Your task to perform on an android device: Open wifi settings Image 0: 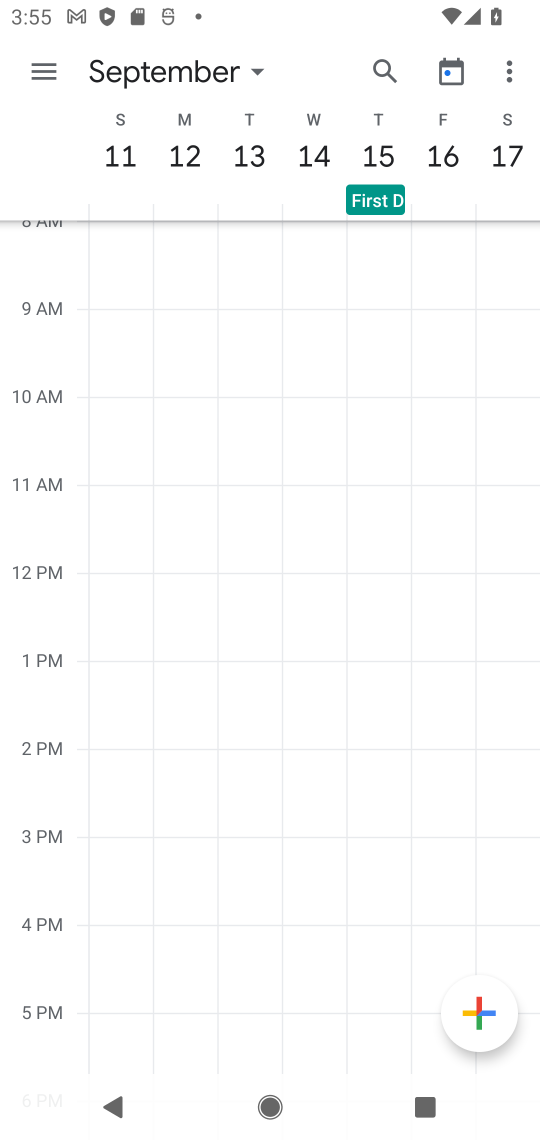
Step 0: press home button
Your task to perform on an android device: Open wifi settings Image 1: 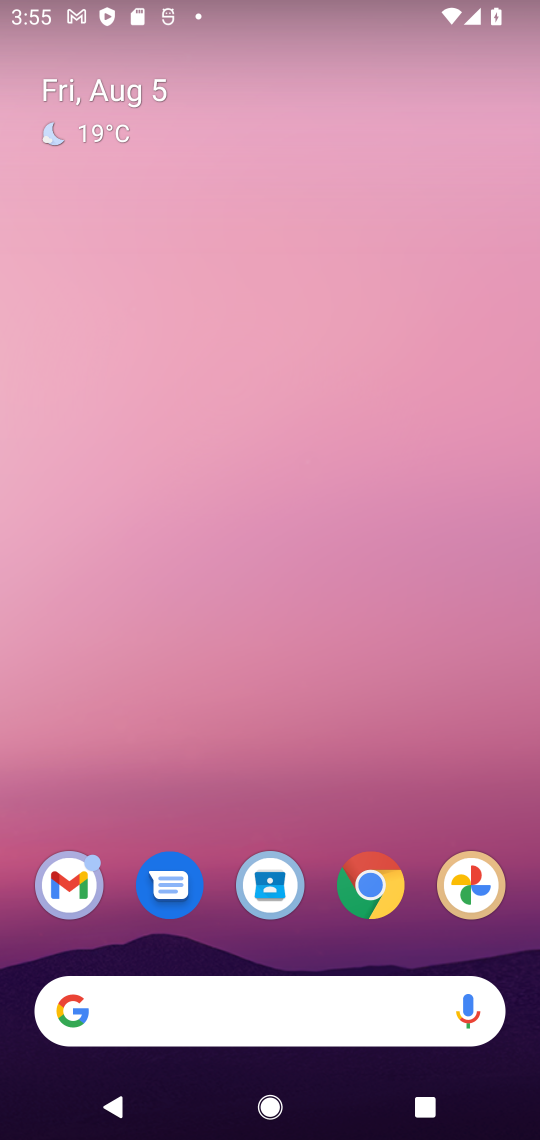
Step 1: drag from (284, 949) to (270, 286)
Your task to perform on an android device: Open wifi settings Image 2: 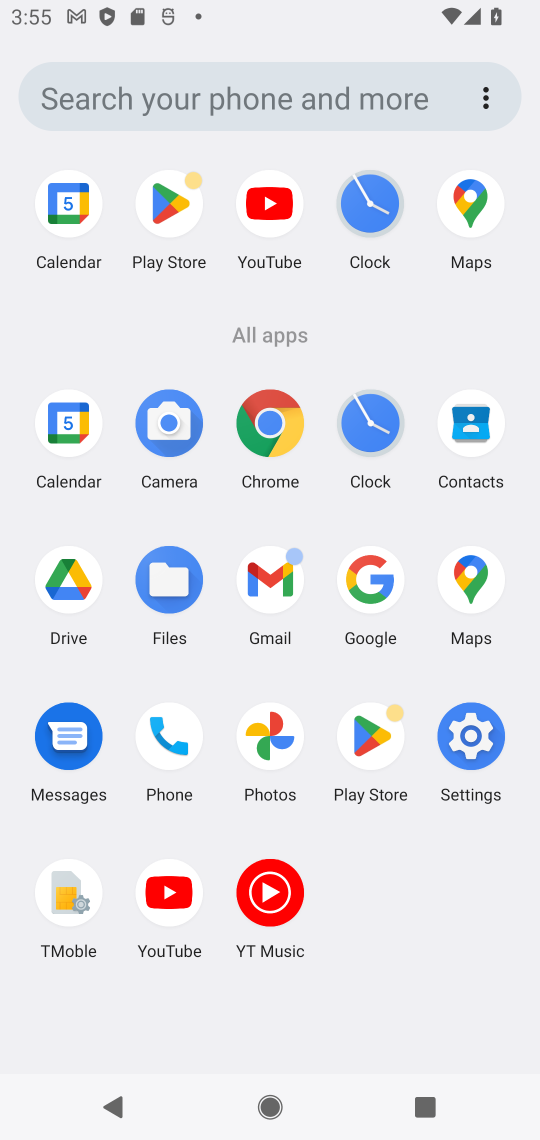
Step 2: click (463, 755)
Your task to perform on an android device: Open wifi settings Image 3: 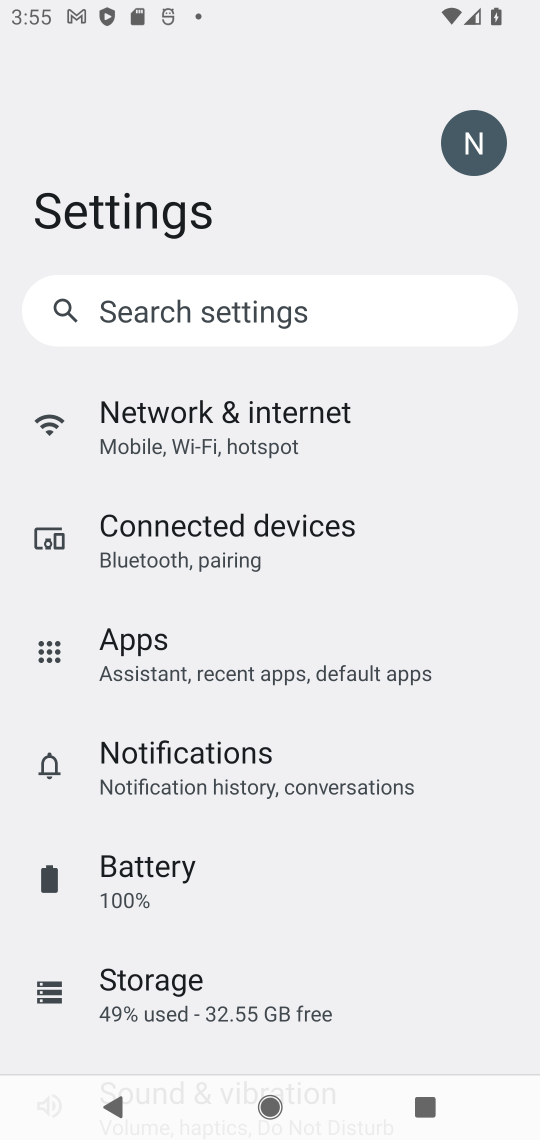
Step 3: click (244, 437)
Your task to perform on an android device: Open wifi settings Image 4: 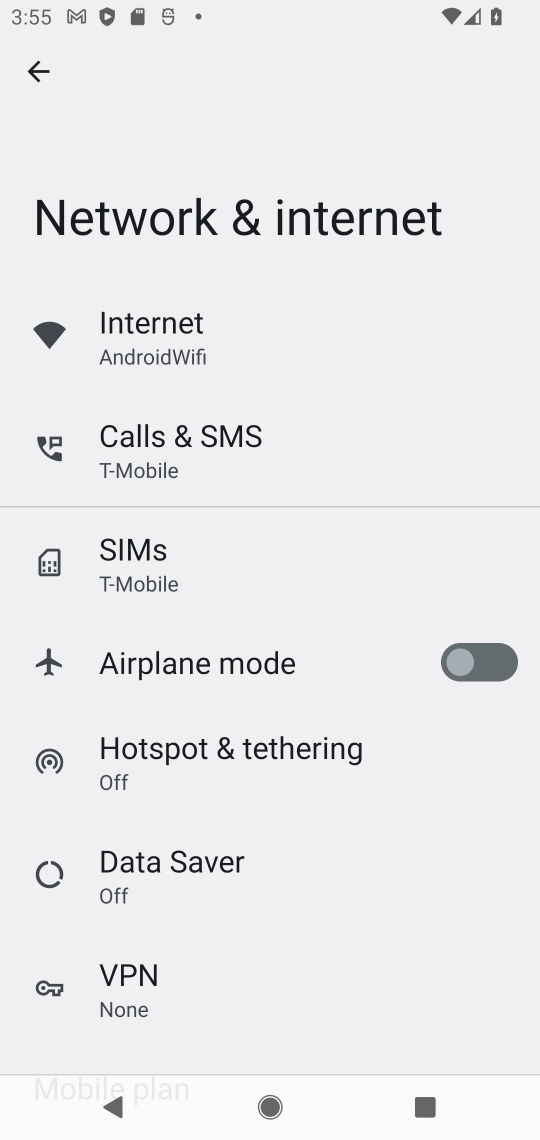
Step 4: click (154, 332)
Your task to perform on an android device: Open wifi settings Image 5: 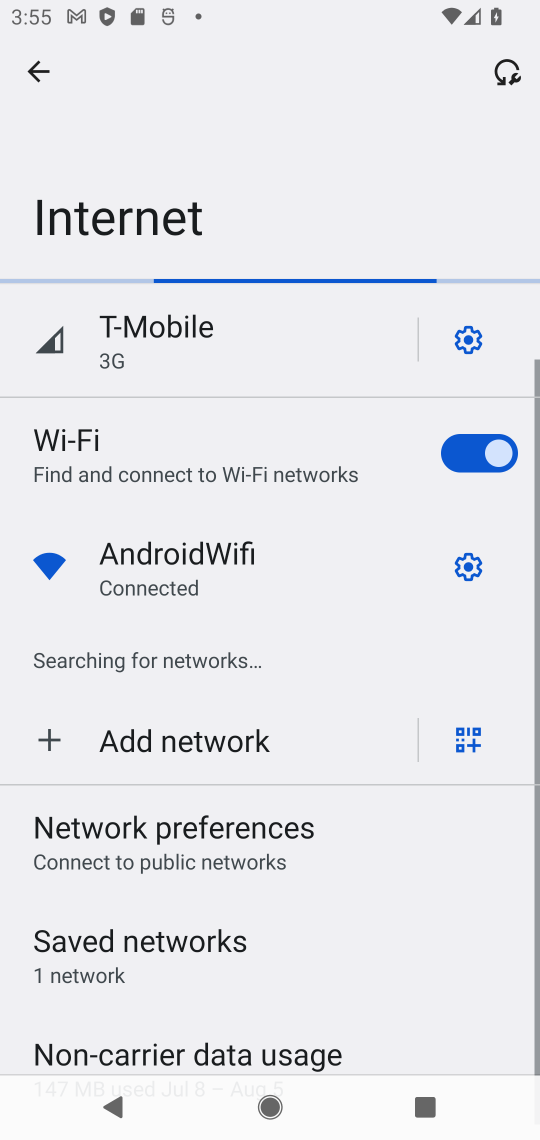
Step 5: task complete